Your task to perform on an android device: Search for "asus zenbook" on target.com, select the first entry, add it to the cart, then select checkout. Image 0: 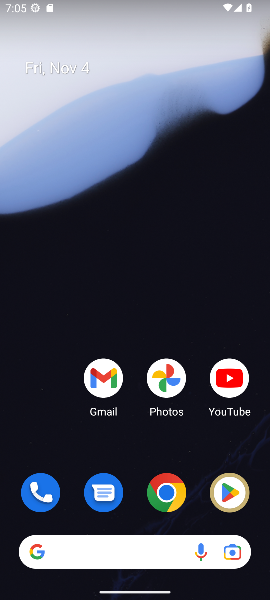
Step 0: drag from (132, 444) to (119, 37)
Your task to perform on an android device: Search for "asus zenbook" on target.com, select the first entry, add it to the cart, then select checkout. Image 1: 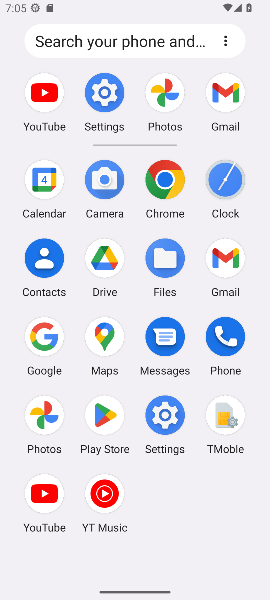
Step 1: click (167, 182)
Your task to perform on an android device: Search for "asus zenbook" on target.com, select the first entry, add it to the cart, then select checkout. Image 2: 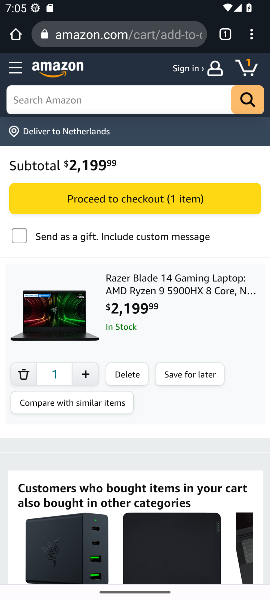
Step 2: click (138, 30)
Your task to perform on an android device: Search for "asus zenbook" on target.com, select the first entry, add it to the cart, then select checkout. Image 3: 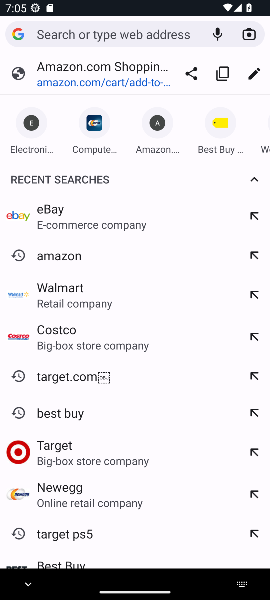
Step 3: type "target.com"
Your task to perform on an android device: Search for "asus zenbook" on target.com, select the first entry, add it to the cart, then select checkout. Image 4: 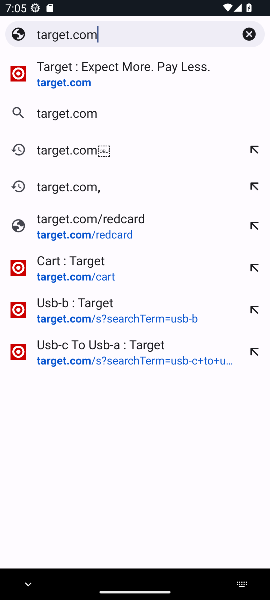
Step 4: press enter
Your task to perform on an android device: Search for "asus zenbook" on target.com, select the first entry, add it to the cart, then select checkout. Image 5: 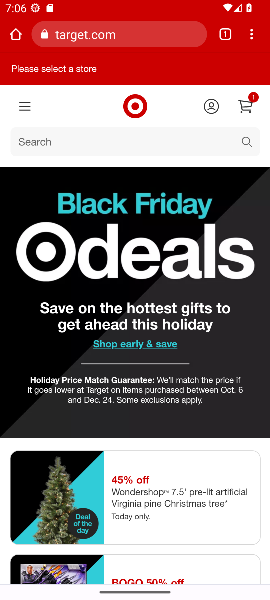
Step 5: click (94, 143)
Your task to perform on an android device: Search for "asus zenbook" on target.com, select the first entry, add it to the cart, then select checkout. Image 6: 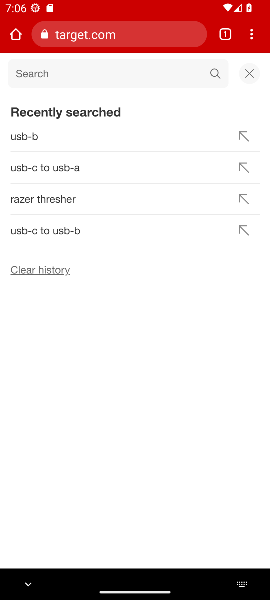
Step 6: type "asus zenbook"
Your task to perform on an android device: Search for "asus zenbook" on target.com, select the first entry, add it to the cart, then select checkout. Image 7: 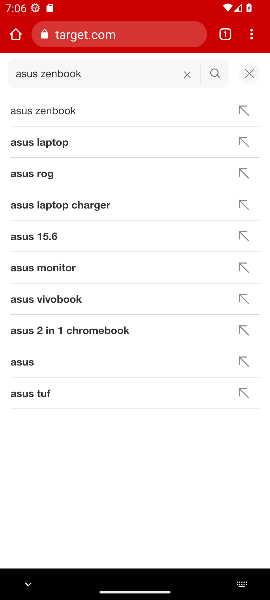
Step 7: press enter
Your task to perform on an android device: Search for "asus zenbook" on target.com, select the first entry, add it to the cart, then select checkout. Image 8: 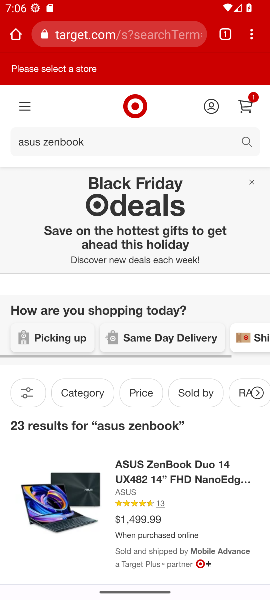
Step 8: drag from (178, 215) to (164, 107)
Your task to perform on an android device: Search for "asus zenbook" on target.com, select the first entry, add it to the cart, then select checkout. Image 9: 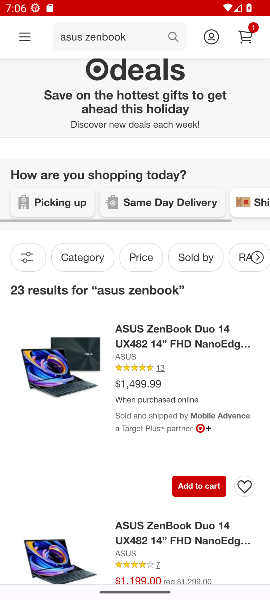
Step 9: click (202, 490)
Your task to perform on an android device: Search for "asus zenbook" on target.com, select the first entry, add it to the cart, then select checkout. Image 10: 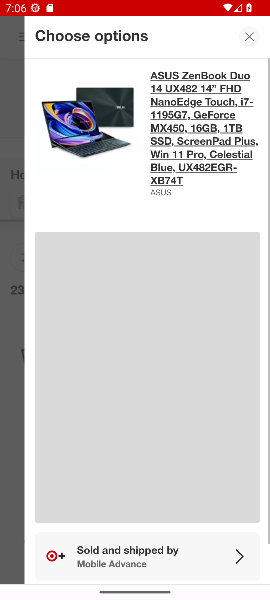
Step 10: drag from (182, 466) to (203, 131)
Your task to perform on an android device: Search for "asus zenbook" on target.com, select the first entry, add it to the cart, then select checkout. Image 11: 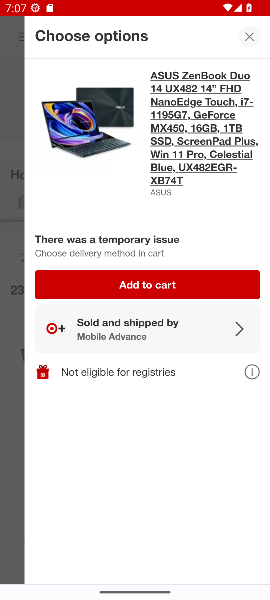
Step 11: click (207, 282)
Your task to perform on an android device: Search for "asus zenbook" on target.com, select the first entry, add it to the cart, then select checkout. Image 12: 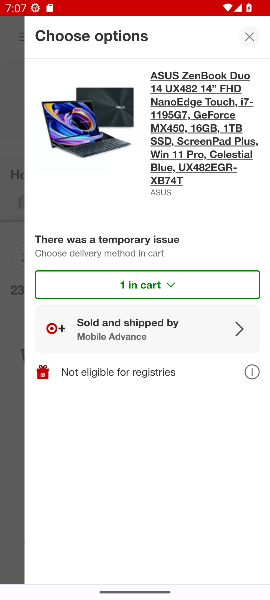
Step 12: click (250, 34)
Your task to perform on an android device: Search for "asus zenbook" on target.com, select the first entry, add it to the cart, then select checkout. Image 13: 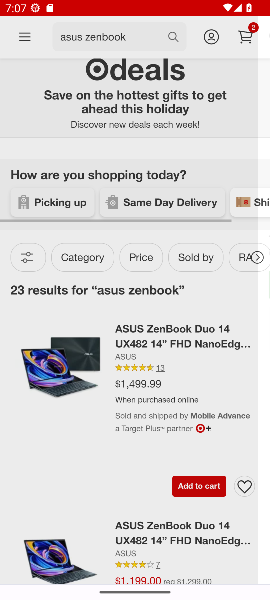
Step 13: click (250, 31)
Your task to perform on an android device: Search for "asus zenbook" on target.com, select the first entry, add it to the cart, then select checkout. Image 14: 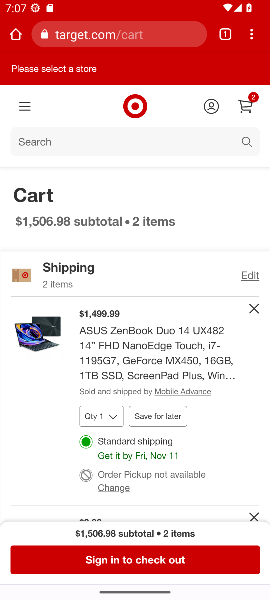
Step 14: click (145, 557)
Your task to perform on an android device: Search for "asus zenbook" on target.com, select the first entry, add it to the cart, then select checkout. Image 15: 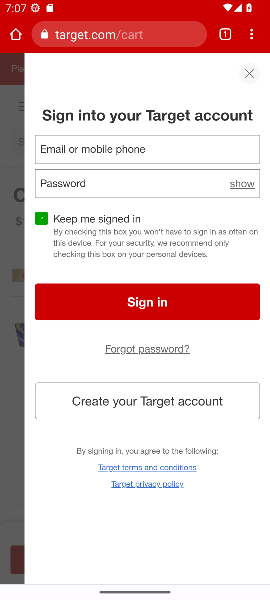
Step 15: task complete